Your task to perform on an android device: toggle location history Image 0: 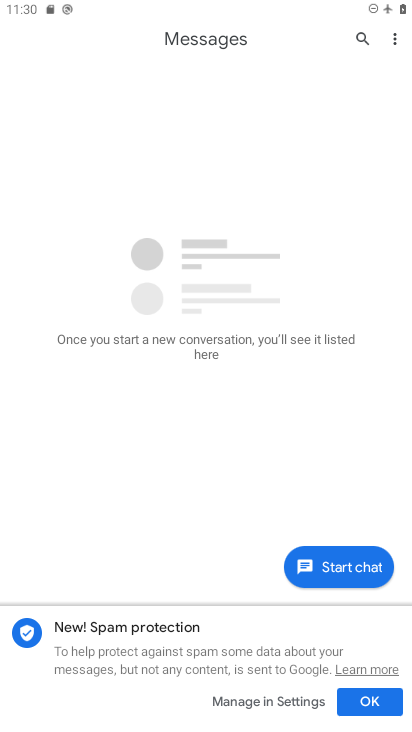
Step 0: press home button
Your task to perform on an android device: toggle location history Image 1: 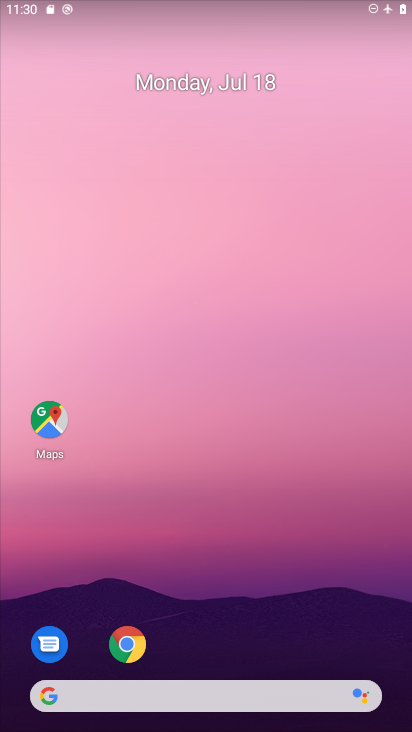
Step 1: drag from (206, 649) to (27, 458)
Your task to perform on an android device: toggle location history Image 2: 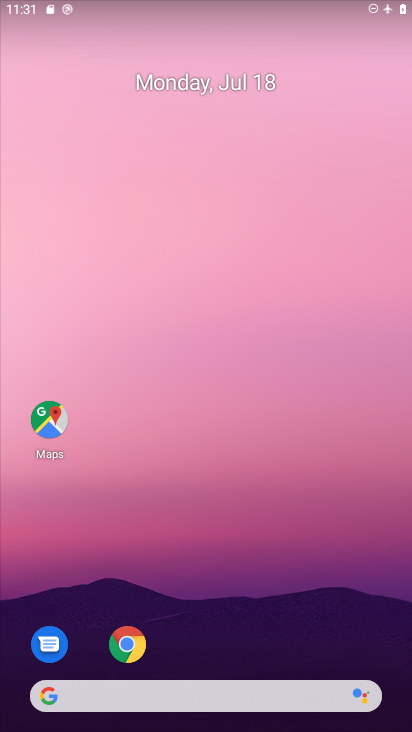
Step 2: drag from (203, 668) to (208, 29)
Your task to perform on an android device: toggle location history Image 3: 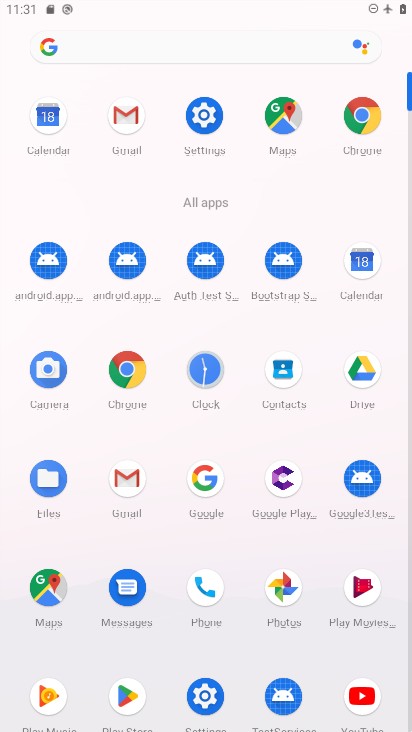
Step 3: click (208, 701)
Your task to perform on an android device: toggle location history Image 4: 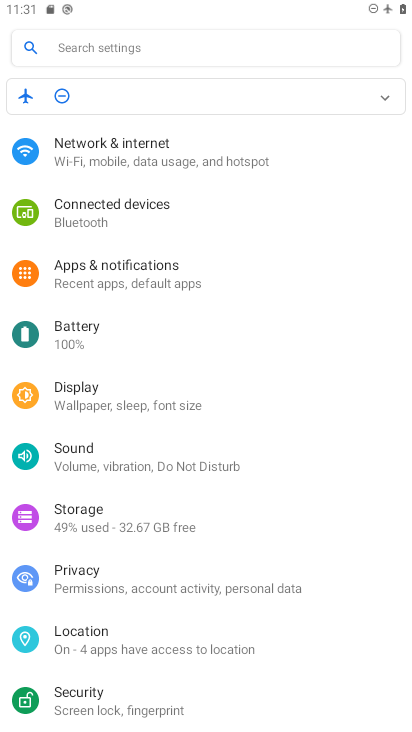
Step 4: click (97, 635)
Your task to perform on an android device: toggle location history Image 5: 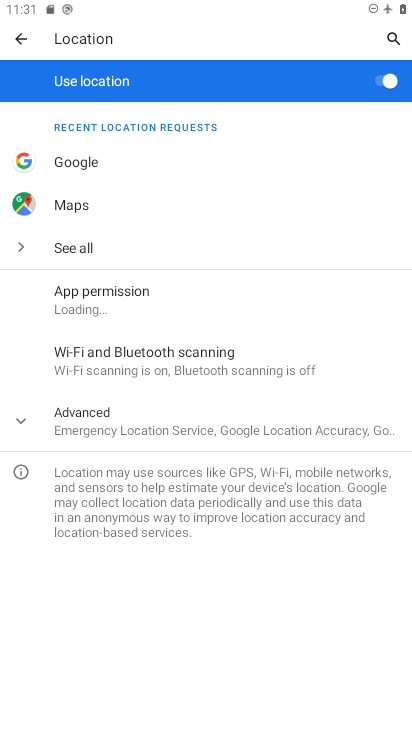
Step 5: click (153, 401)
Your task to perform on an android device: toggle location history Image 6: 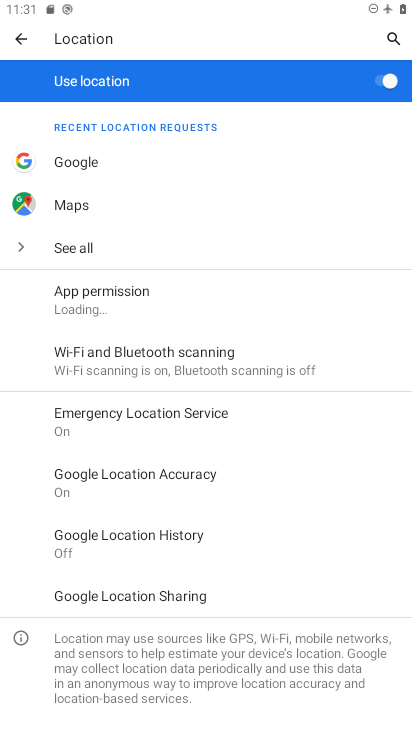
Step 6: click (164, 539)
Your task to perform on an android device: toggle location history Image 7: 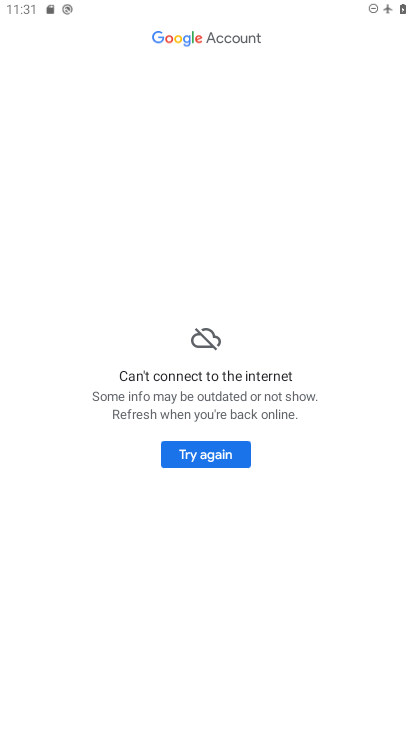
Step 7: click (214, 432)
Your task to perform on an android device: toggle location history Image 8: 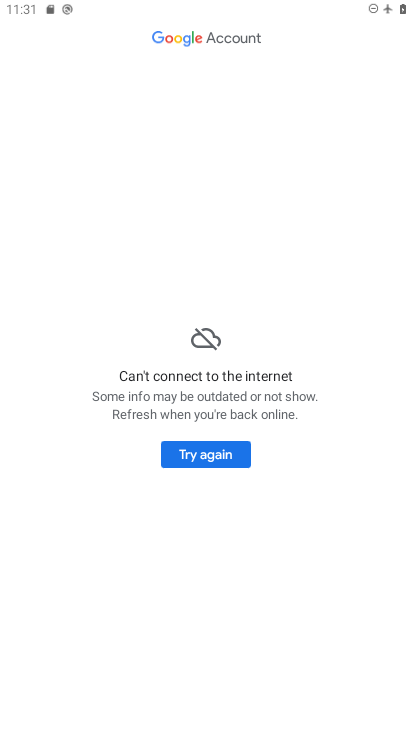
Step 8: task complete